Your task to perform on an android device: Open settings Image 0: 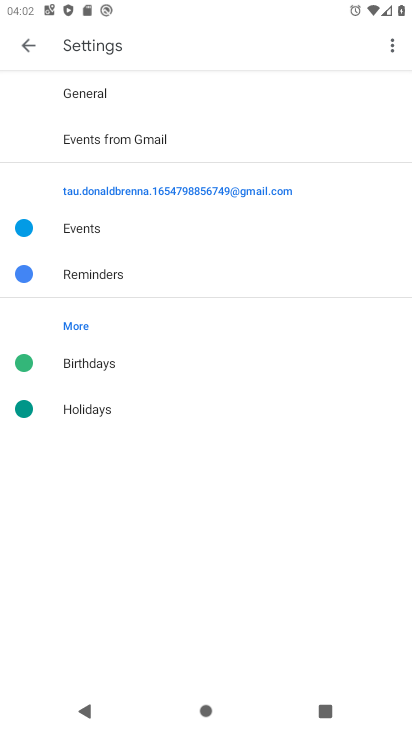
Step 0: press home button
Your task to perform on an android device: Open settings Image 1: 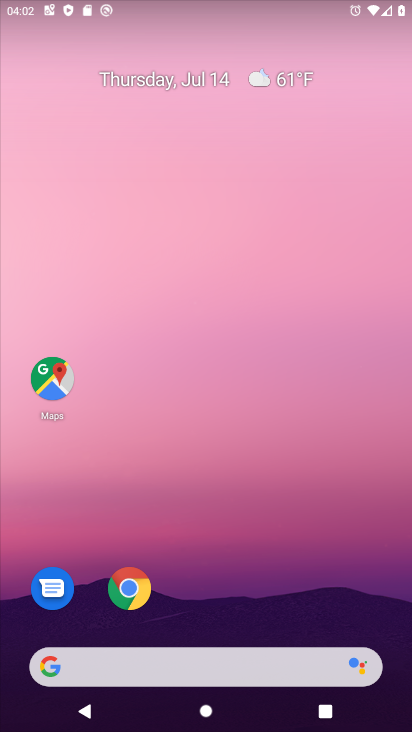
Step 1: drag from (272, 608) to (217, 66)
Your task to perform on an android device: Open settings Image 2: 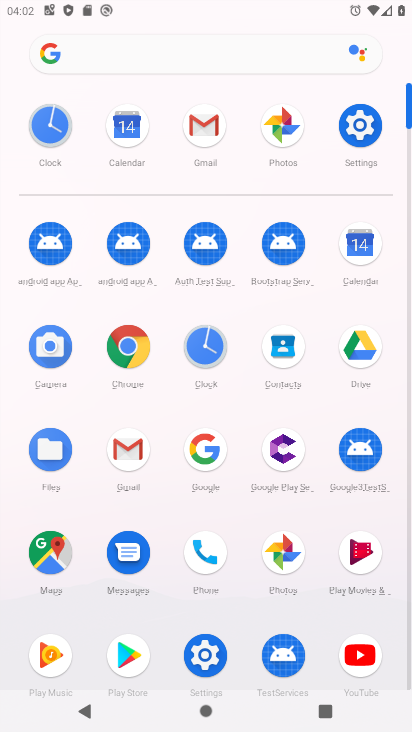
Step 2: click (366, 119)
Your task to perform on an android device: Open settings Image 3: 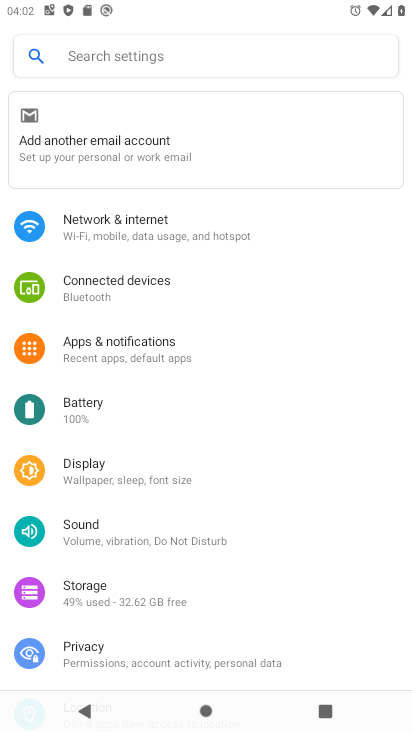
Step 3: task complete